Your task to perform on an android device: Show me popular videos on Youtube Image 0: 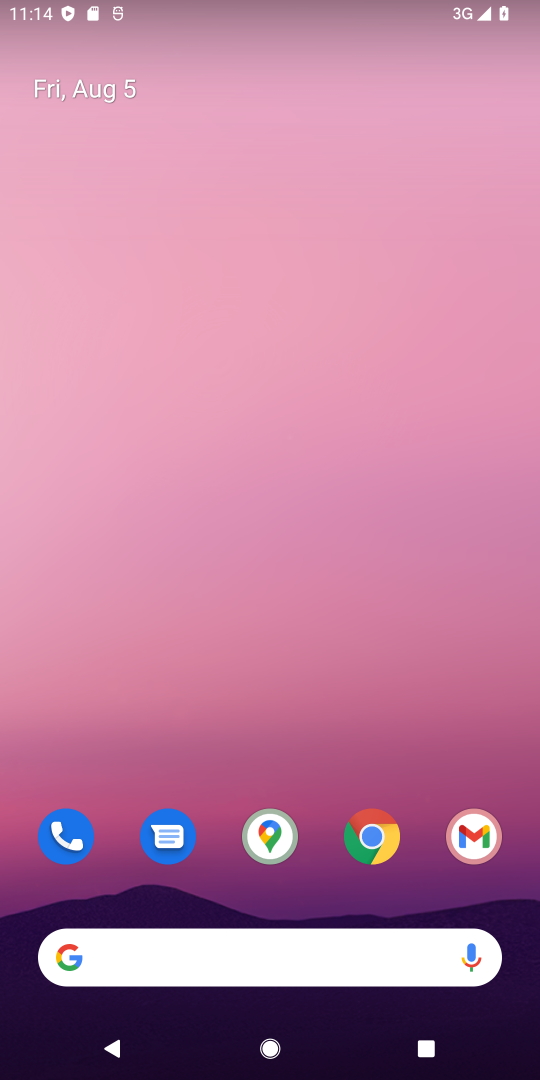
Step 0: drag from (318, 873) to (387, 89)
Your task to perform on an android device: Show me popular videos on Youtube Image 1: 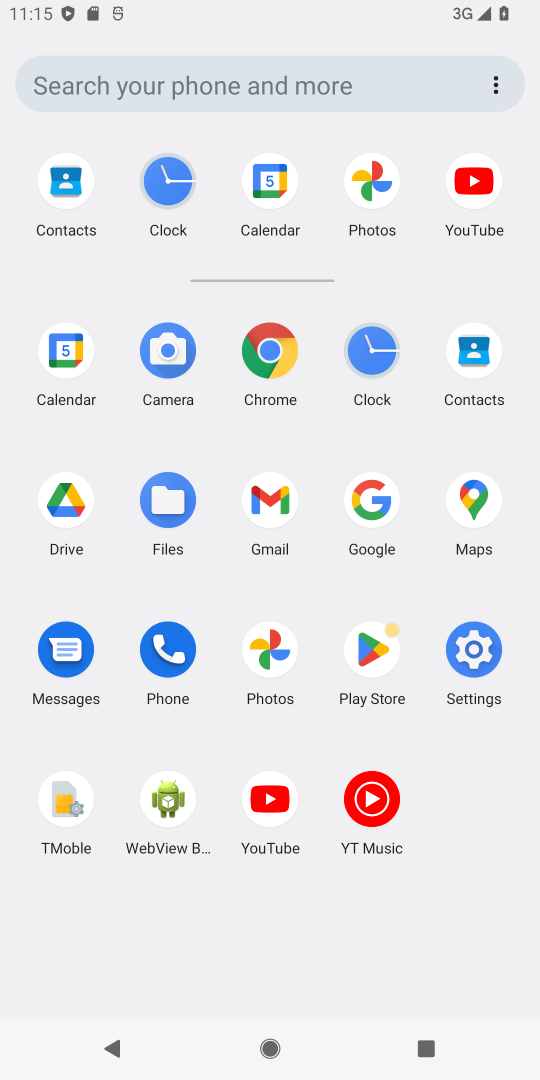
Step 1: click (277, 786)
Your task to perform on an android device: Show me popular videos on Youtube Image 2: 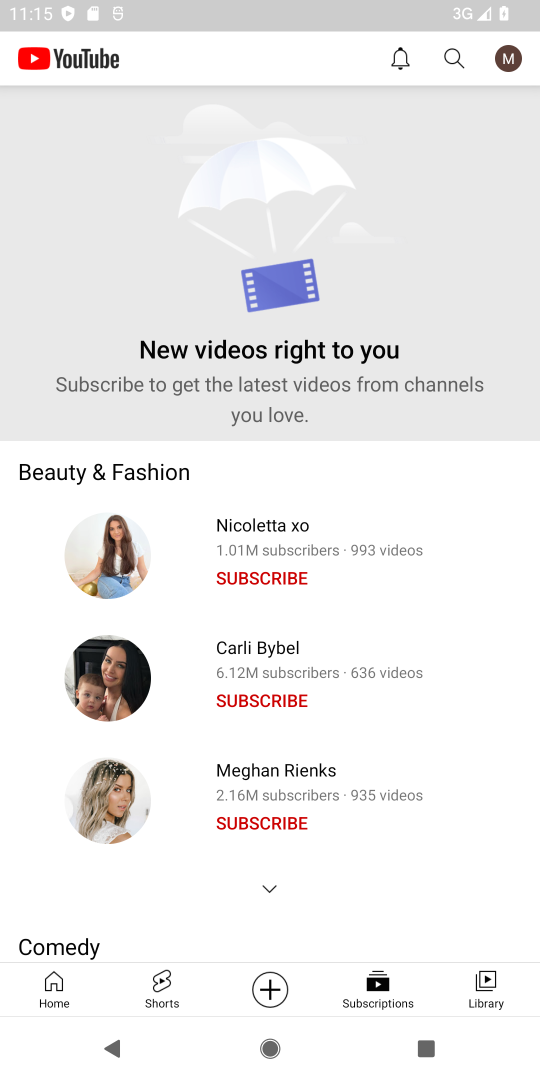
Step 2: click (46, 991)
Your task to perform on an android device: Show me popular videos on Youtube Image 3: 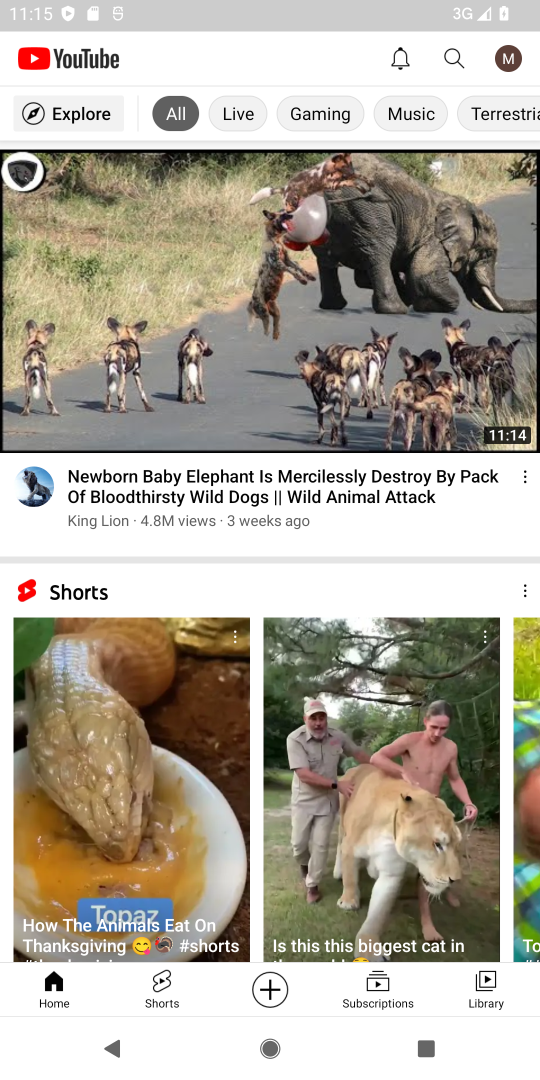
Step 3: click (77, 117)
Your task to perform on an android device: Show me popular videos on Youtube Image 4: 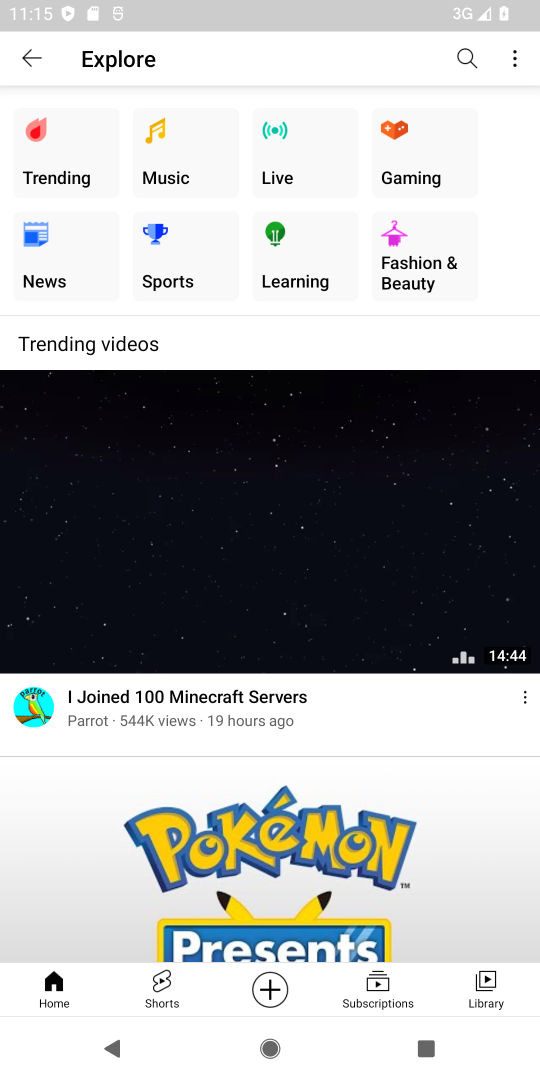
Step 4: task complete